Your task to perform on an android device: Go to privacy settings Image 0: 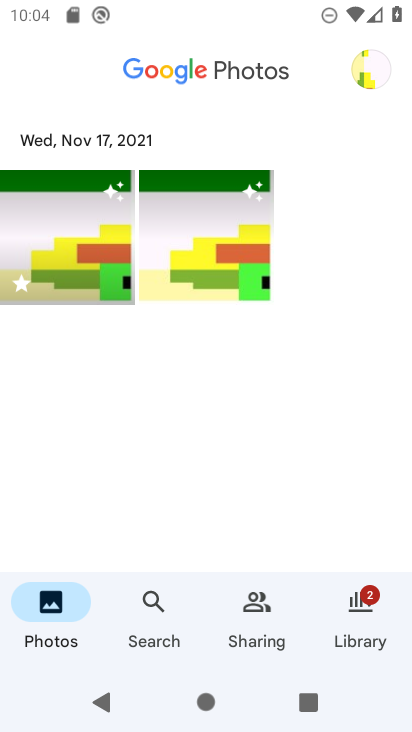
Step 0: press home button
Your task to perform on an android device: Go to privacy settings Image 1: 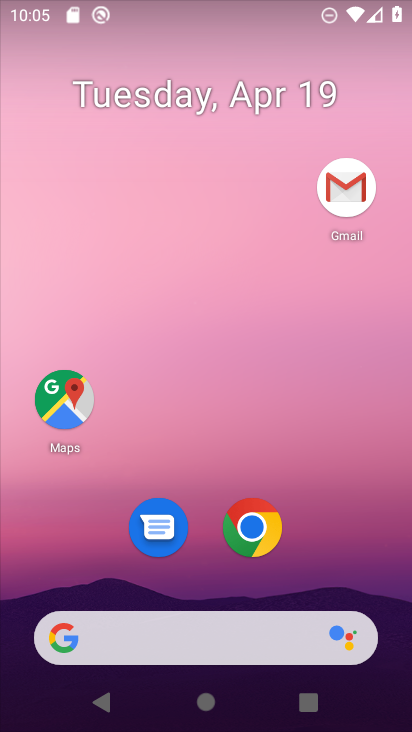
Step 1: drag from (358, 551) to (358, 106)
Your task to perform on an android device: Go to privacy settings Image 2: 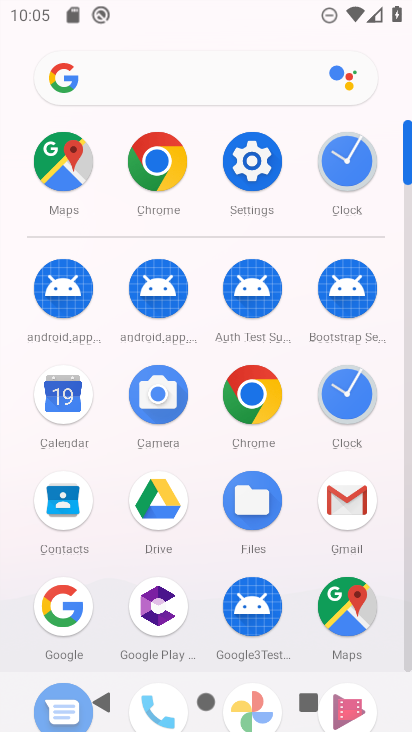
Step 2: click (254, 177)
Your task to perform on an android device: Go to privacy settings Image 3: 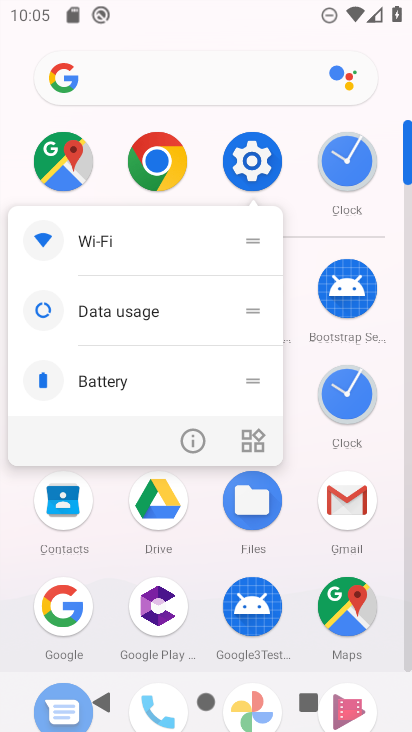
Step 3: click (253, 180)
Your task to perform on an android device: Go to privacy settings Image 4: 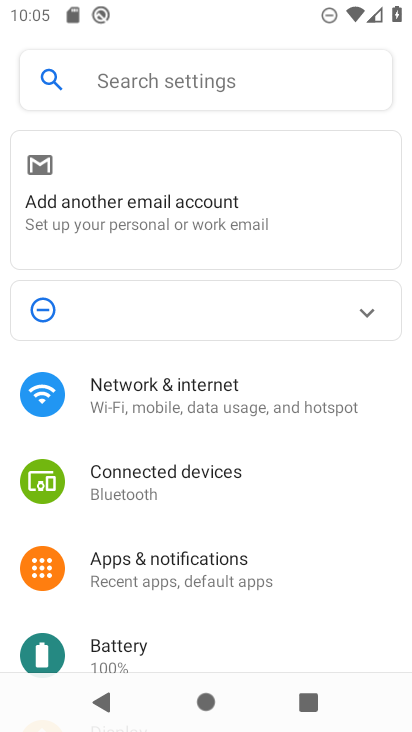
Step 4: drag from (312, 549) to (316, 227)
Your task to perform on an android device: Go to privacy settings Image 5: 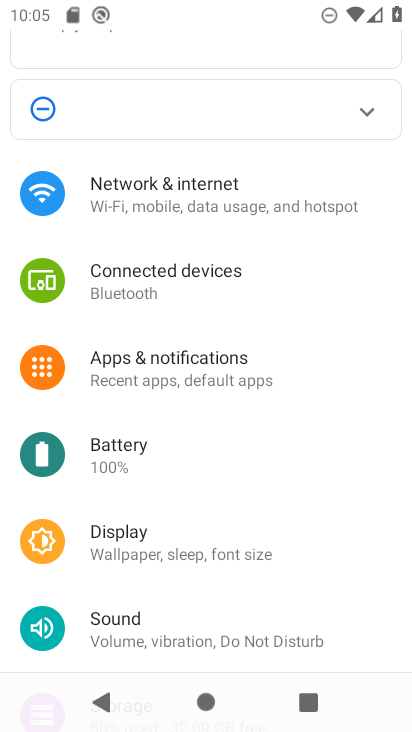
Step 5: drag from (320, 568) to (311, 216)
Your task to perform on an android device: Go to privacy settings Image 6: 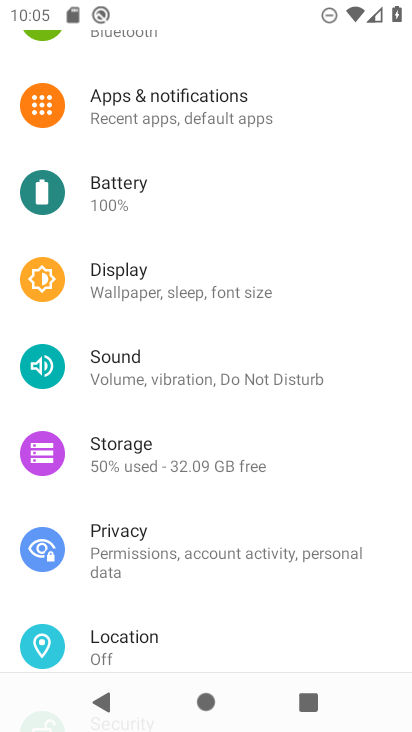
Step 6: click (189, 550)
Your task to perform on an android device: Go to privacy settings Image 7: 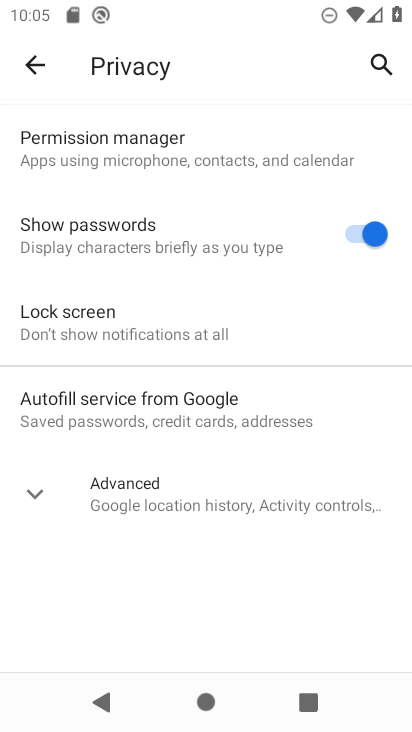
Step 7: task complete